Your task to perform on an android device: Open Youtube and go to the subscriptions tab Image 0: 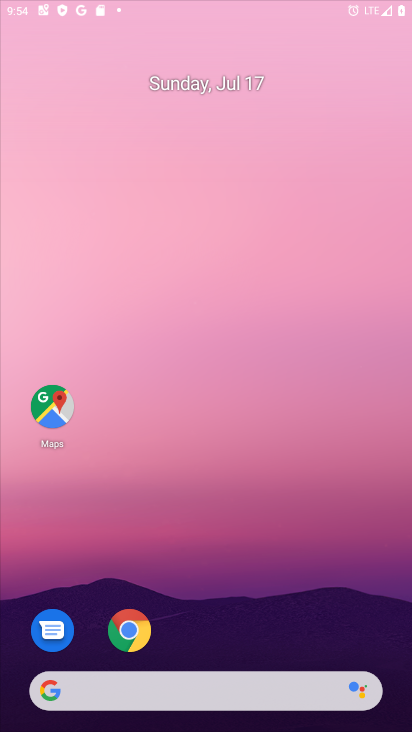
Step 0: press home button
Your task to perform on an android device: Open Youtube and go to the subscriptions tab Image 1: 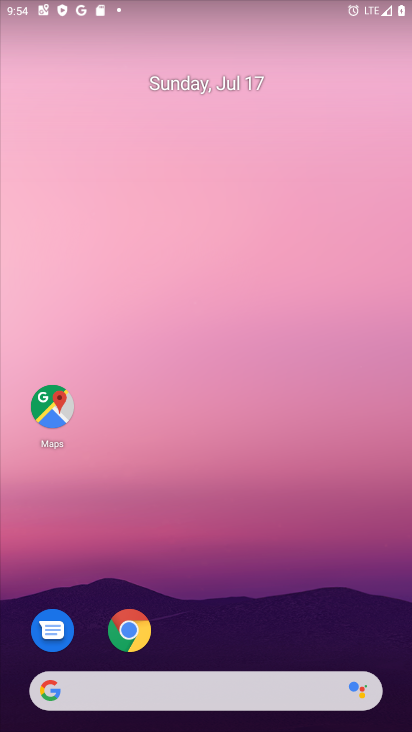
Step 1: drag from (218, 645) to (258, 95)
Your task to perform on an android device: Open Youtube and go to the subscriptions tab Image 2: 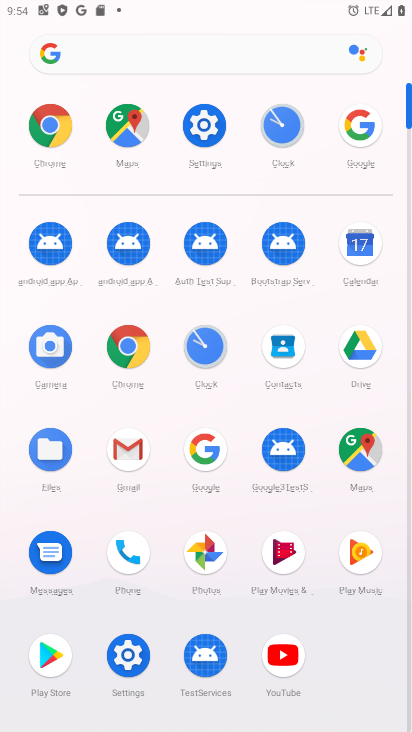
Step 2: click (280, 647)
Your task to perform on an android device: Open Youtube and go to the subscriptions tab Image 3: 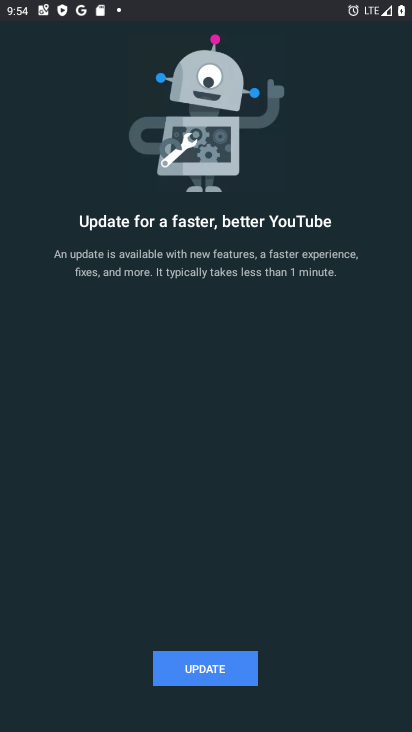
Step 3: click (204, 665)
Your task to perform on an android device: Open Youtube and go to the subscriptions tab Image 4: 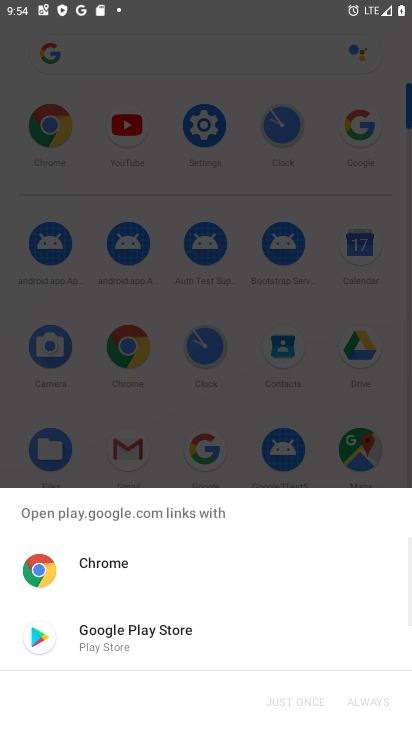
Step 4: click (129, 633)
Your task to perform on an android device: Open Youtube and go to the subscriptions tab Image 5: 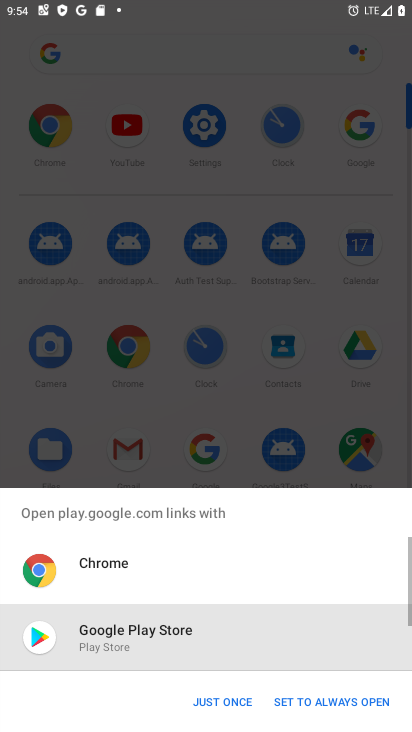
Step 5: click (216, 702)
Your task to perform on an android device: Open Youtube and go to the subscriptions tab Image 6: 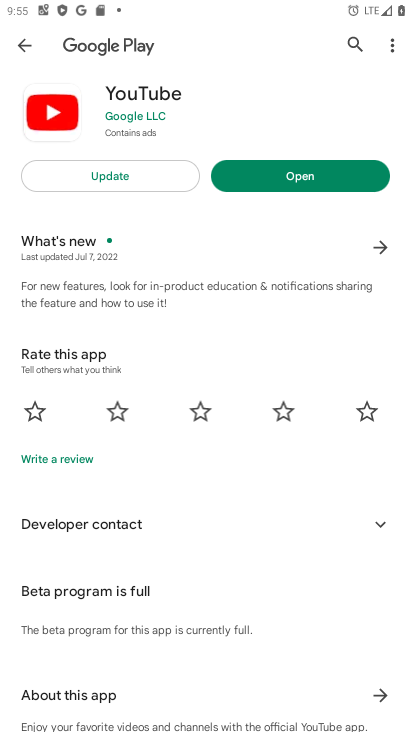
Step 6: click (111, 175)
Your task to perform on an android device: Open Youtube and go to the subscriptions tab Image 7: 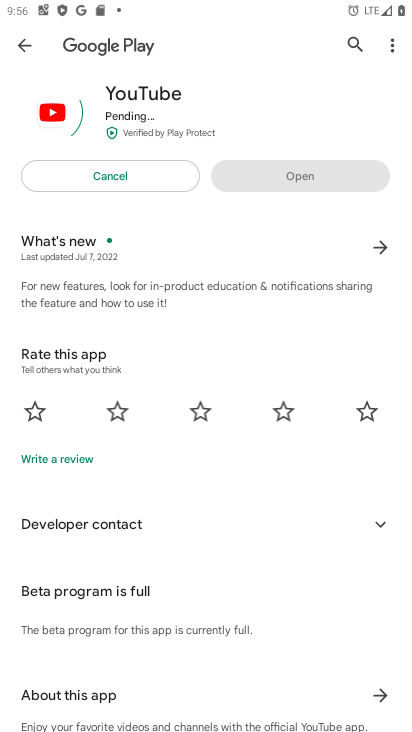
Step 7: task complete